Your task to perform on an android device: install app "Truecaller" Image 0: 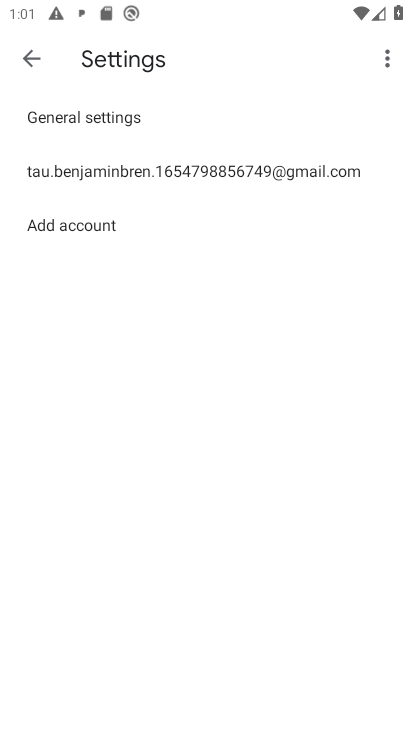
Step 0: press home button
Your task to perform on an android device: install app "Truecaller" Image 1: 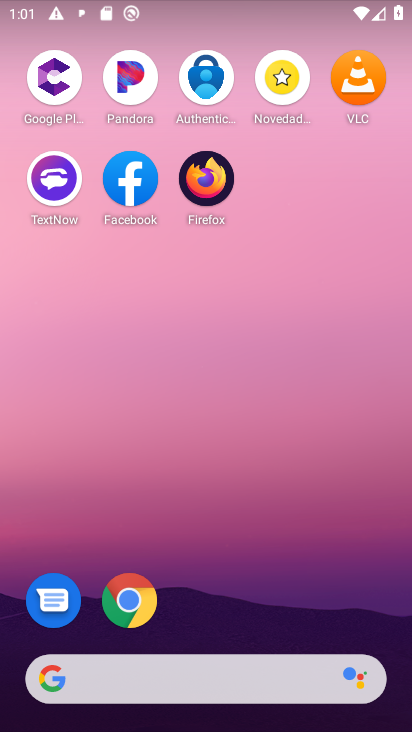
Step 1: drag from (185, 415) to (185, 167)
Your task to perform on an android device: install app "Truecaller" Image 2: 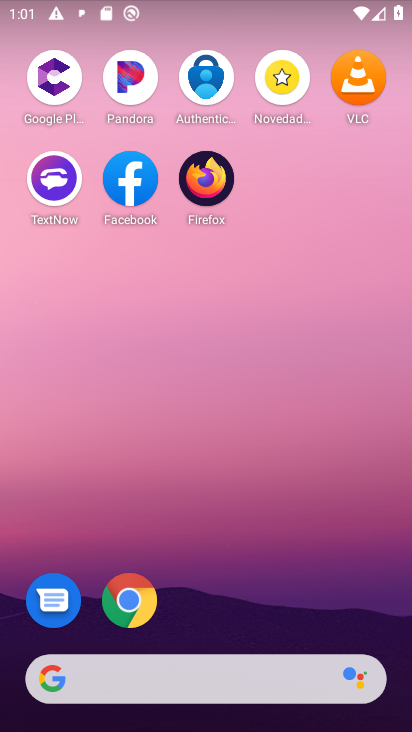
Step 2: drag from (300, 570) to (284, 124)
Your task to perform on an android device: install app "Truecaller" Image 3: 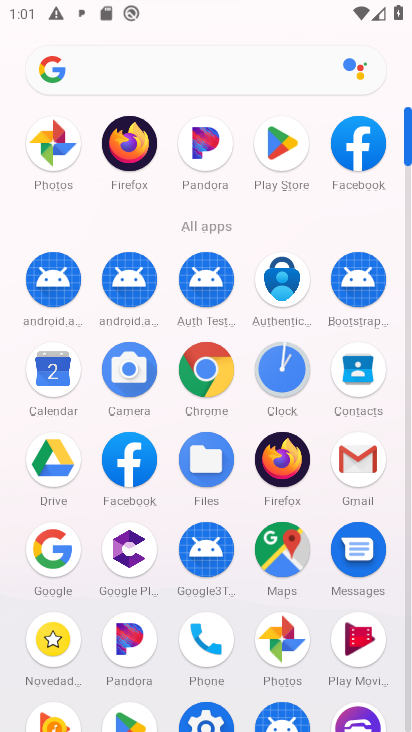
Step 3: click (270, 151)
Your task to perform on an android device: install app "Truecaller" Image 4: 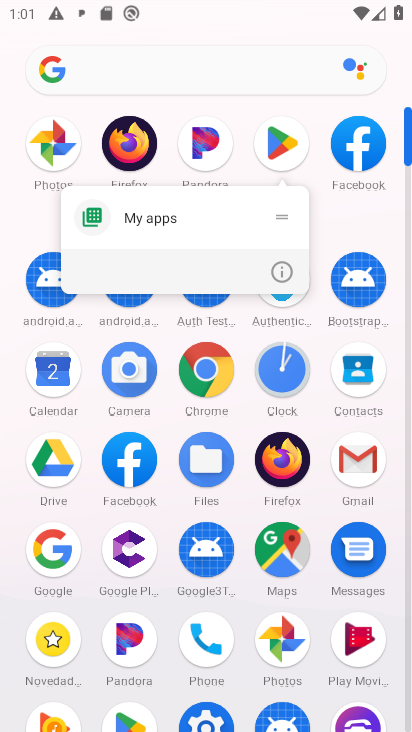
Step 4: click (290, 148)
Your task to perform on an android device: install app "Truecaller" Image 5: 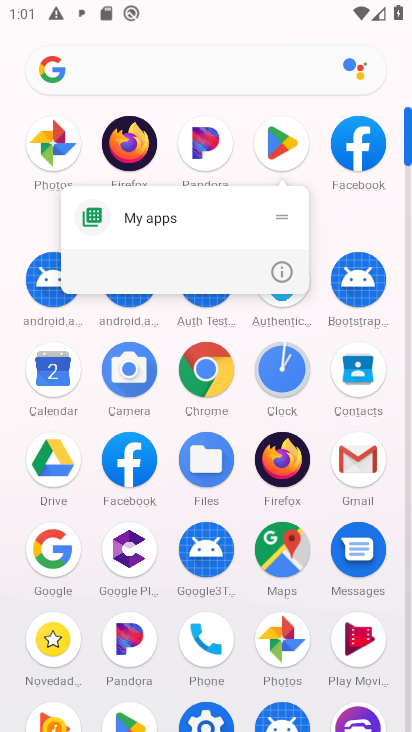
Step 5: click (290, 148)
Your task to perform on an android device: install app "Truecaller" Image 6: 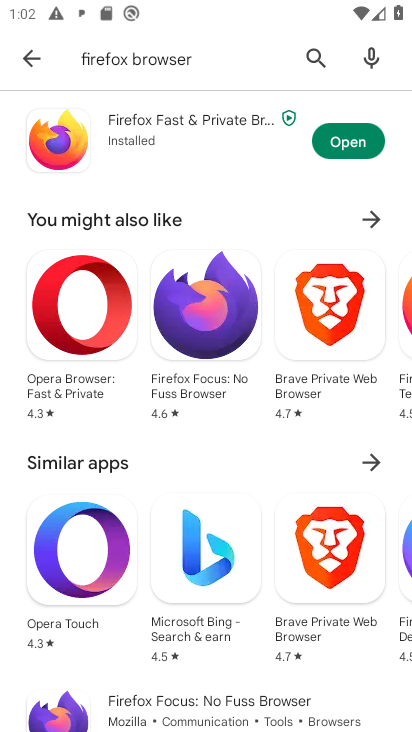
Step 6: click (37, 56)
Your task to perform on an android device: install app "Truecaller" Image 7: 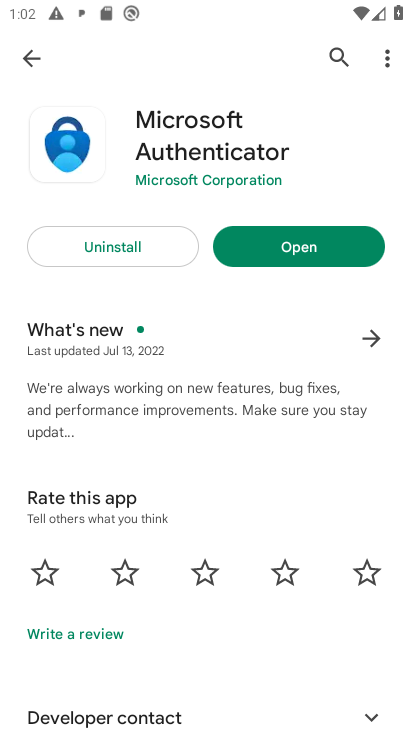
Step 7: click (334, 48)
Your task to perform on an android device: install app "Truecaller" Image 8: 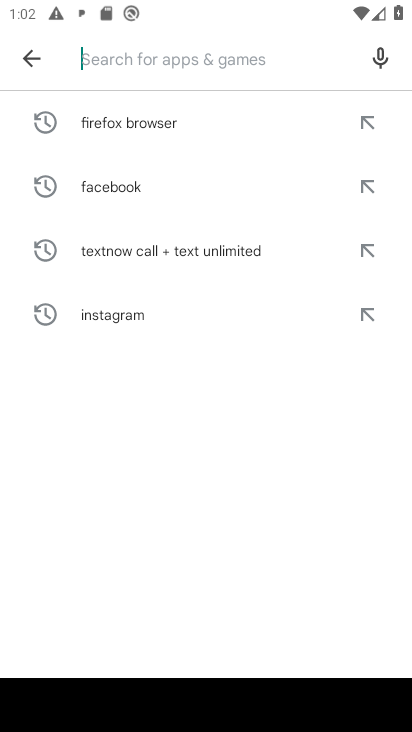
Step 8: type "Truecaller"
Your task to perform on an android device: install app "Truecaller" Image 9: 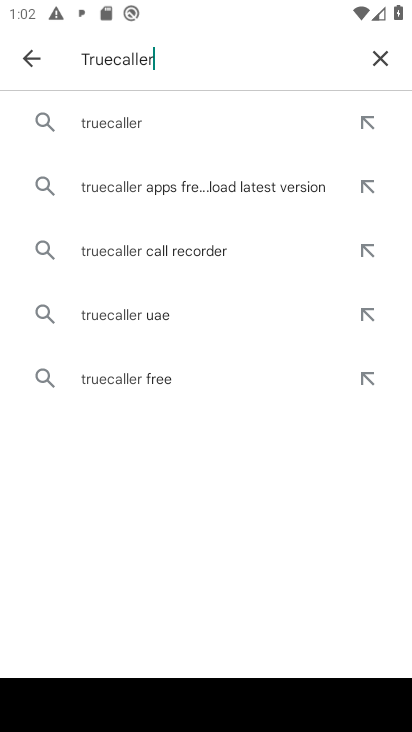
Step 9: click (131, 122)
Your task to perform on an android device: install app "Truecaller" Image 10: 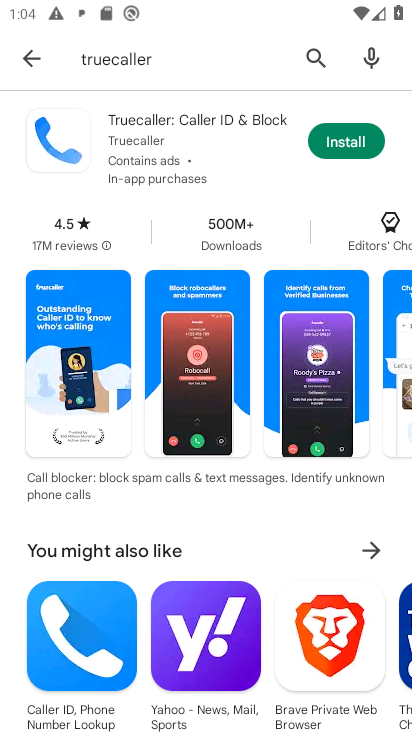
Step 10: click (343, 141)
Your task to perform on an android device: install app "Truecaller" Image 11: 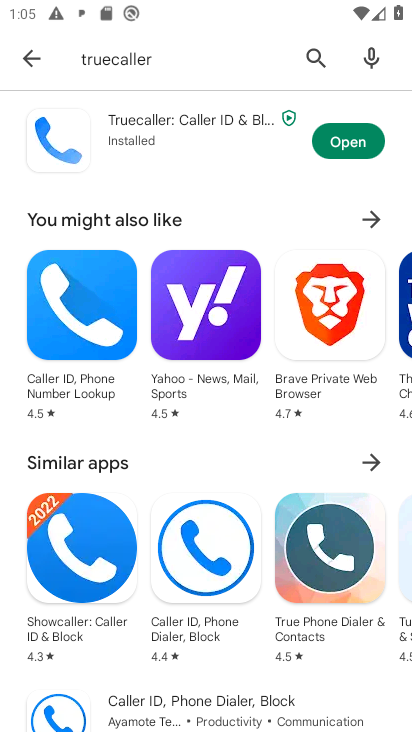
Step 11: click (356, 142)
Your task to perform on an android device: install app "Truecaller" Image 12: 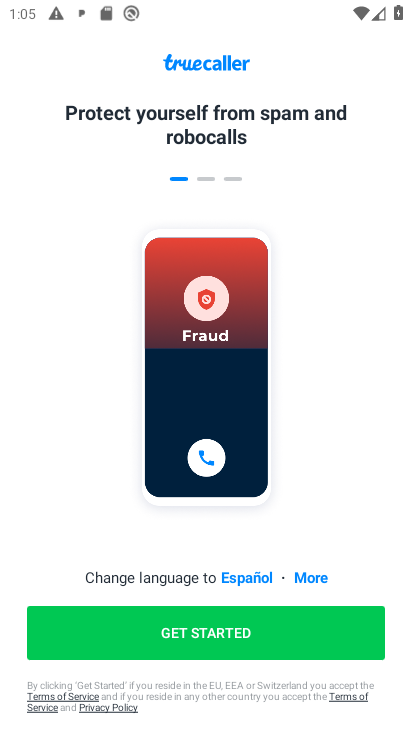
Step 12: task complete